Your task to perform on an android device: create a new album in the google photos Image 0: 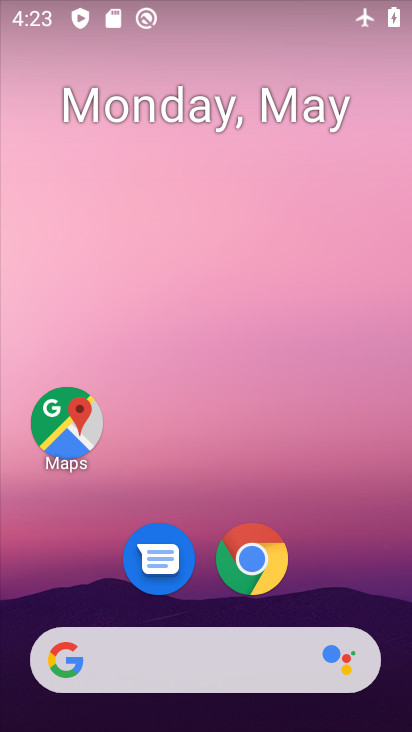
Step 0: drag from (326, 494) to (238, 15)
Your task to perform on an android device: create a new album in the google photos Image 1: 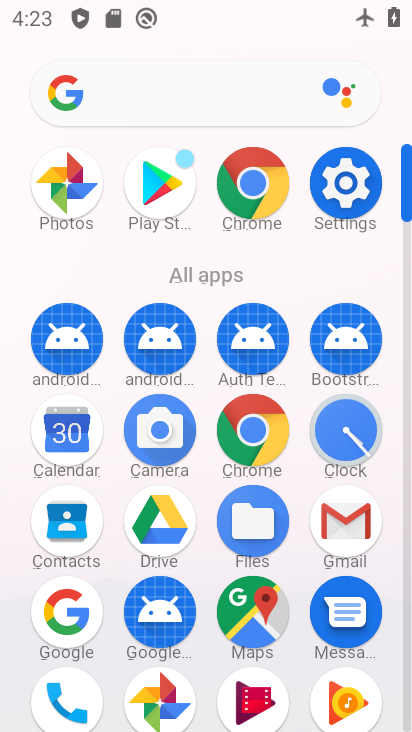
Step 1: drag from (11, 603) to (23, 272)
Your task to perform on an android device: create a new album in the google photos Image 2: 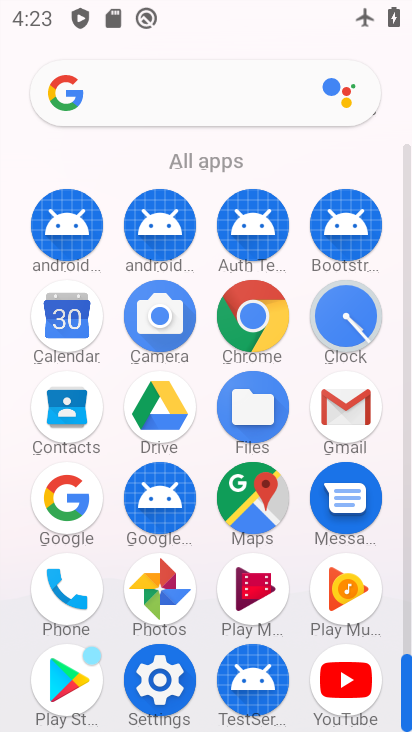
Step 2: click (155, 586)
Your task to perform on an android device: create a new album in the google photos Image 3: 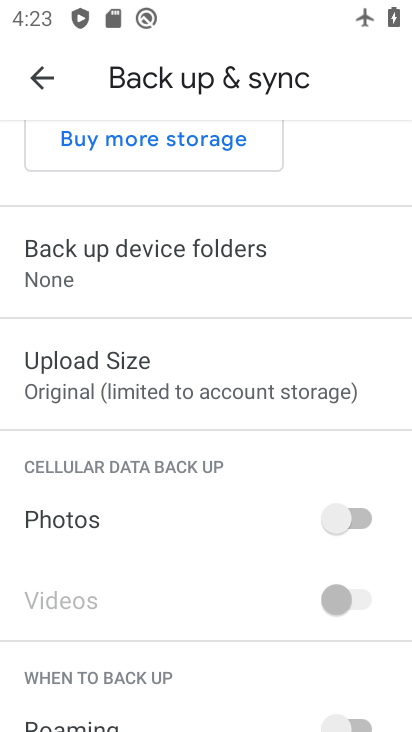
Step 3: click (46, 81)
Your task to perform on an android device: create a new album in the google photos Image 4: 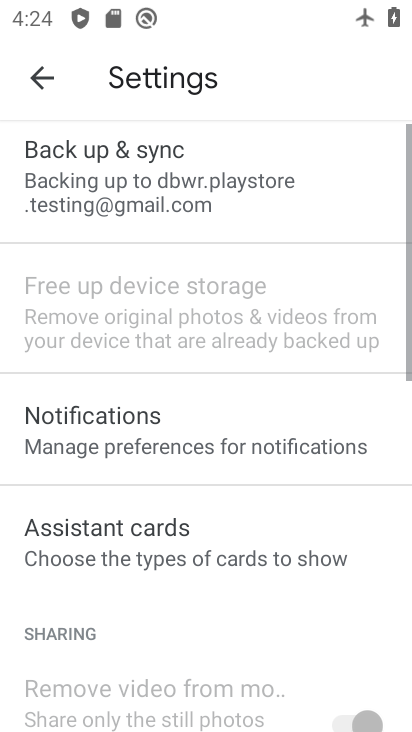
Step 4: click (45, 81)
Your task to perform on an android device: create a new album in the google photos Image 5: 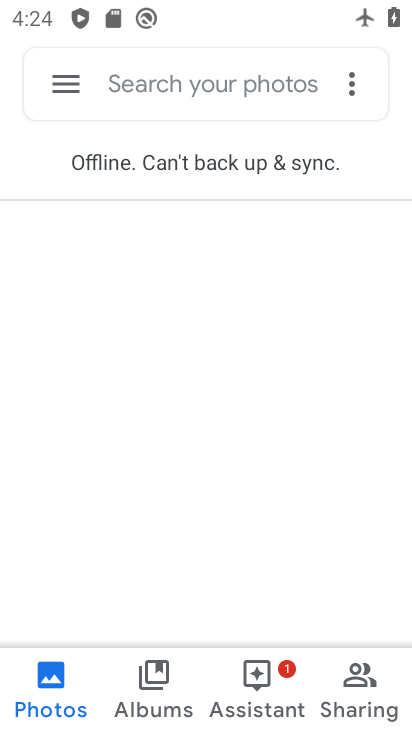
Step 5: click (175, 704)
Your task to perform on an android device: create a new album in the google photos Image 6: 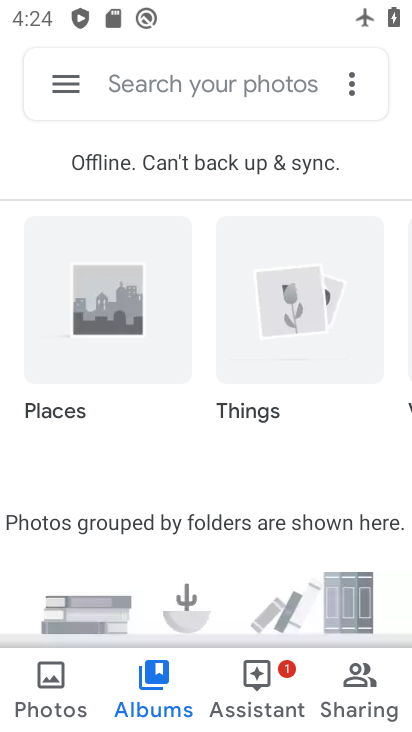
Step 6: click (69, 695)
Your task to perform on an android device: create a new album in the google photos Image 7: 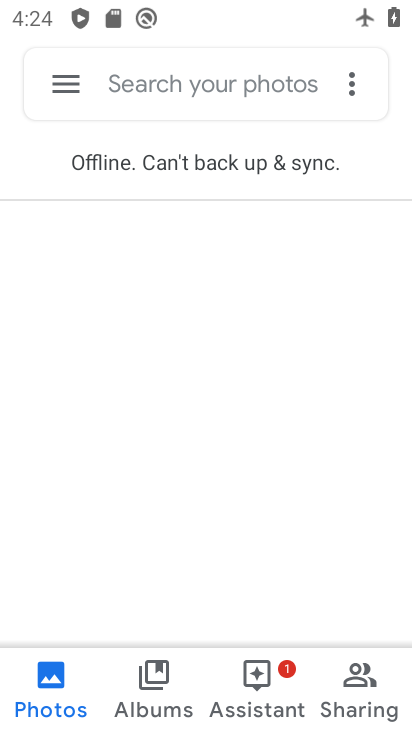
Step 7: task complete